Your task to perform on an android device: Go to CNN.com Image 0: 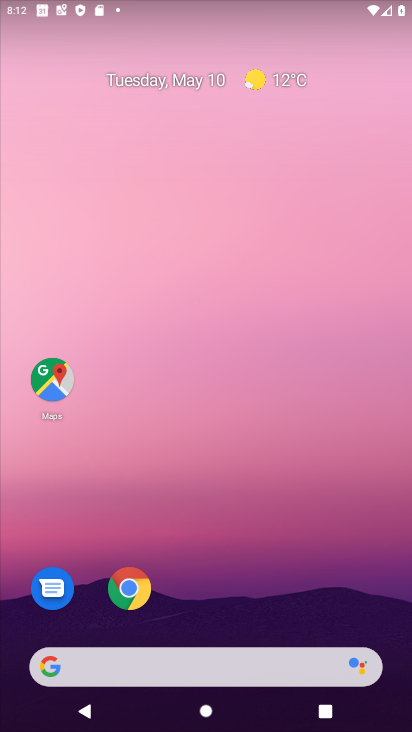
Step 0: click (187, 654)
Your task to perform on an android device: Go to CNN.com Image 1: 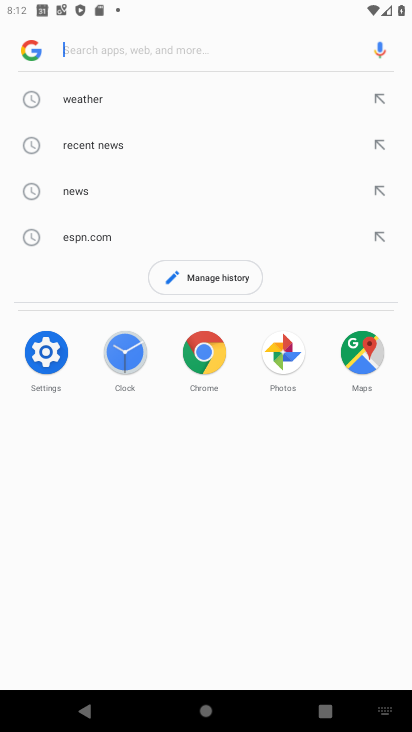
Step 1: type "cnn.com"
Your task to perform on an android device: Go to CNN.com Image 2: 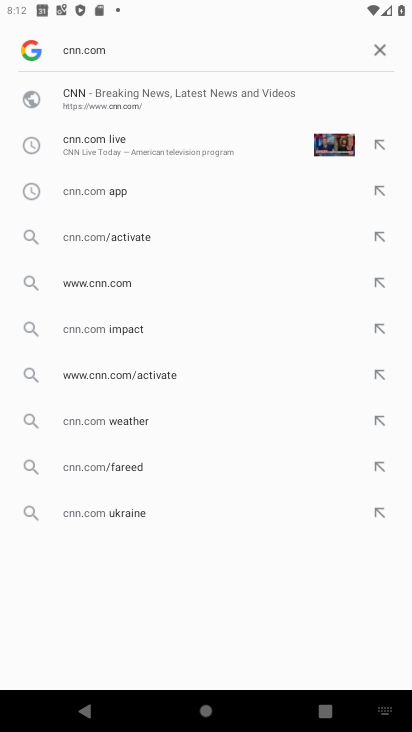
Step 2: click (188, 98)
Your task to perform on an android device: Go to CNN.com Image 3: 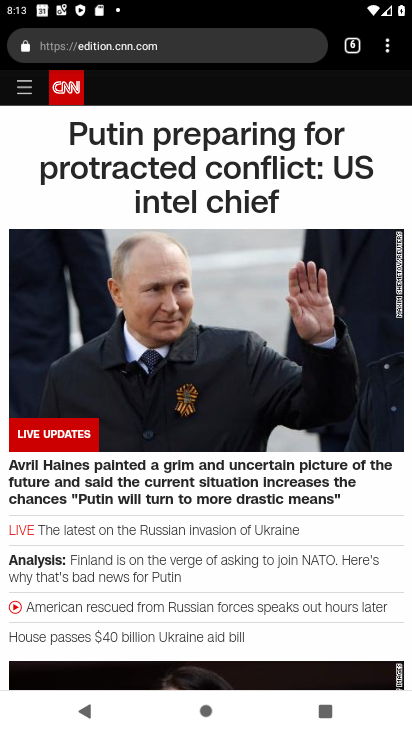
Step 3: task complete